Your task to perform on an android device: open sync settings in chrome Image 0: 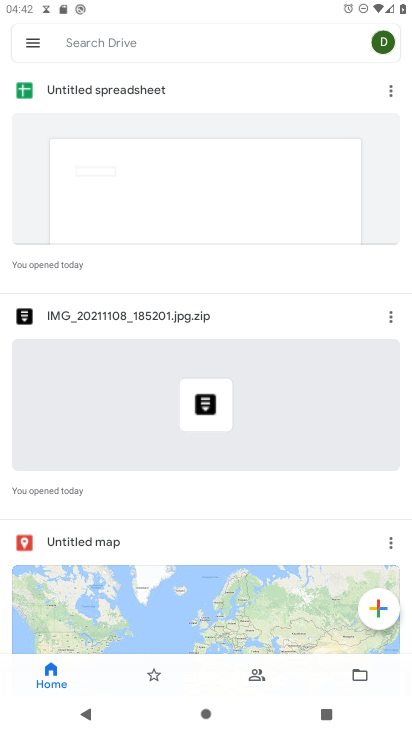
Step 0: press home button
Your task to perform on an android device: open sync settings in chrome Image 1: 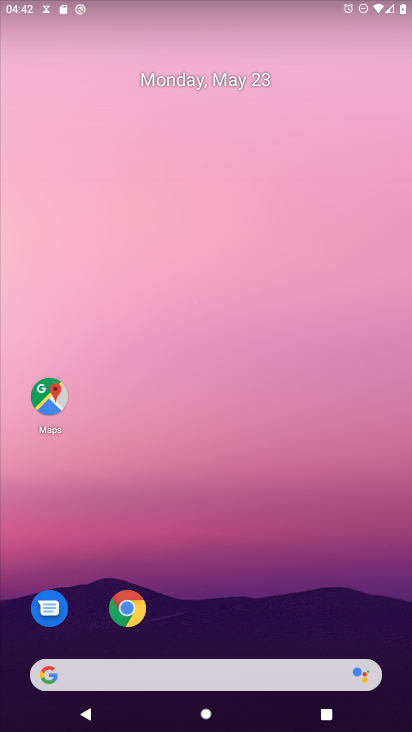
Step 1: click (127, 610)
Your task to perform on an android device: open sync settings in chrome Image 2: 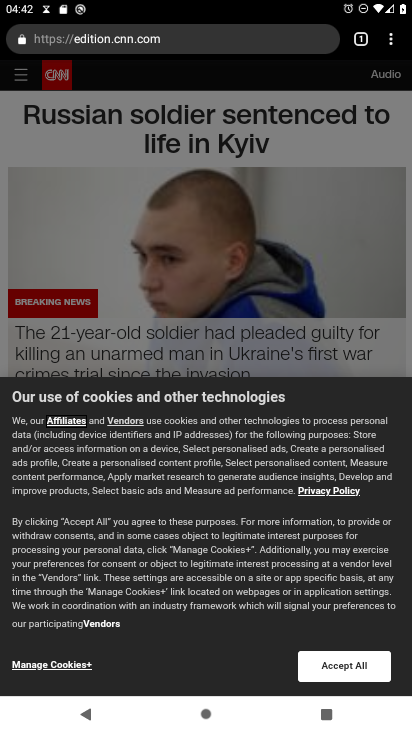
Step 2: click (391, 42)
Your task to perform on an android device: open sync settings in chrome Image 3: 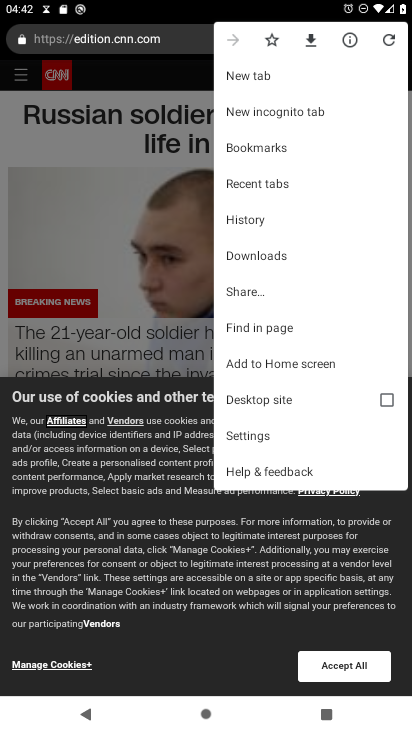
Step 3: click (248, 432)
Your task to perform on an android device: open sync settings in chrome Image 4: 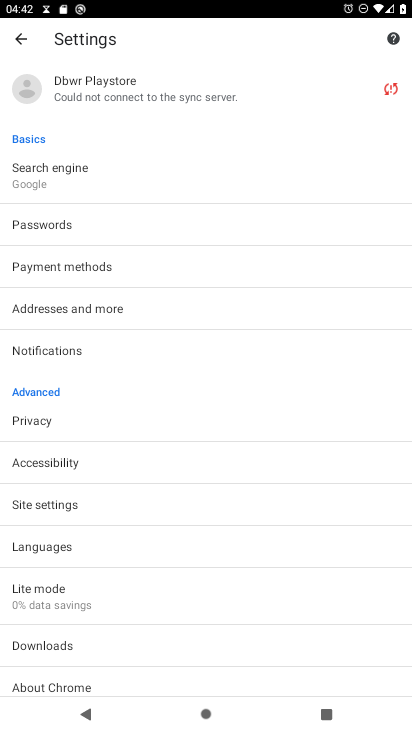
Step 4: click (58, 505)
Your task to perform on an android device: open sync settings in chrome Image 5: 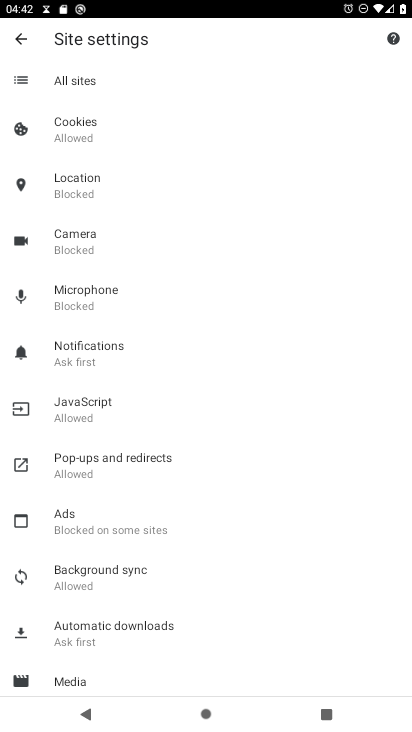
Step 5: click (83, 570)
Your task to perform on an android device: open sync settings in chrome Image 6: 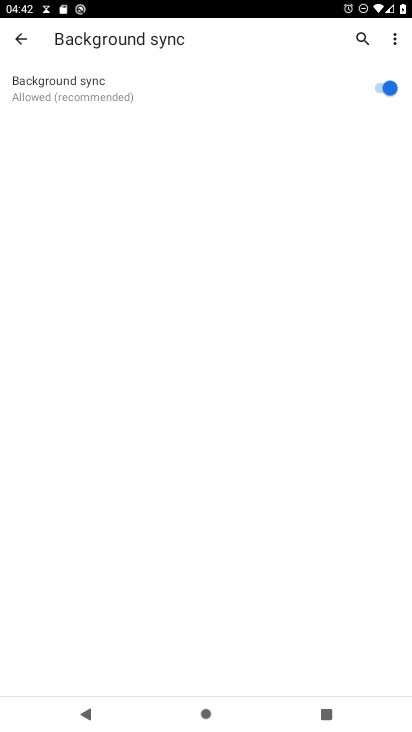
Step 6: task complete